Your task to perform on an android device: Open the calendar and show me this week's events Image 0: 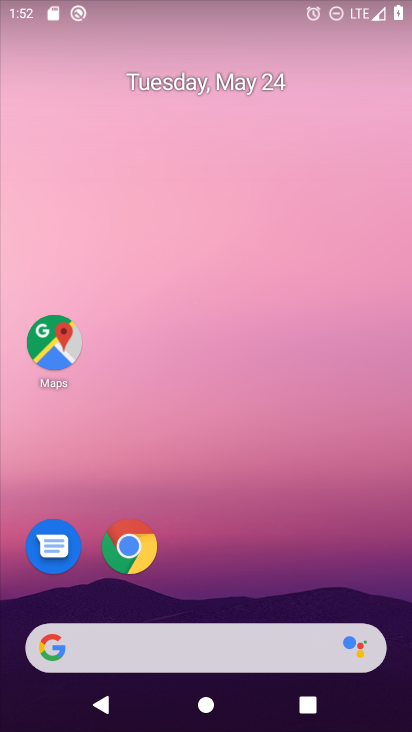
Step 0: drag from (235, 629) to (140, 73)
Your task to perform on an android device: Open the calendar and show me this week's events Image 1: 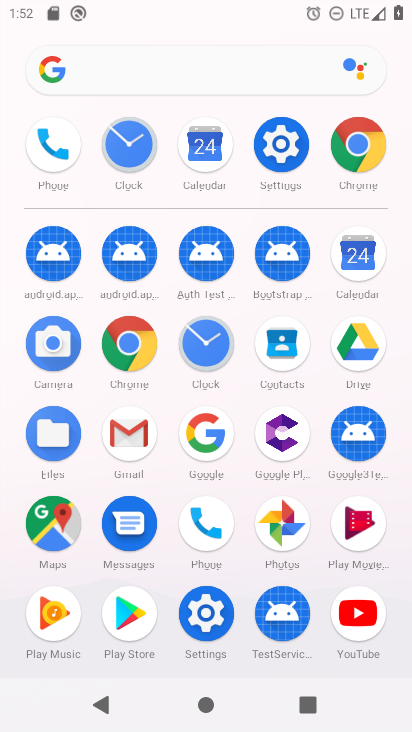
Step 1: click (366, 241)
Your task to perform on an android device: Open the calendar and show me this week's events Image 2: 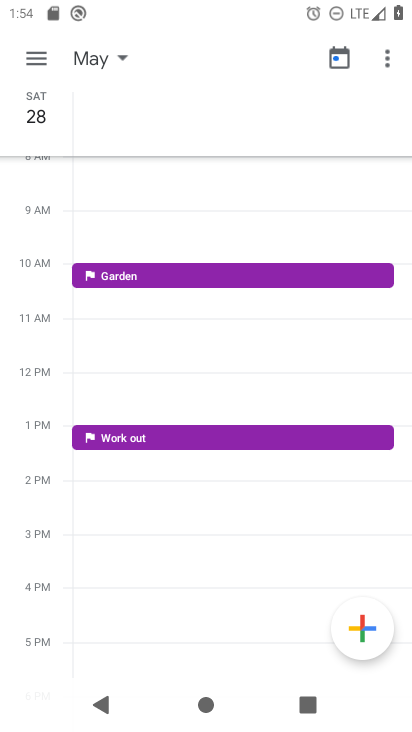
Step 2: task complete